Your task to perform on an android device: turn notification dots on Image 0: 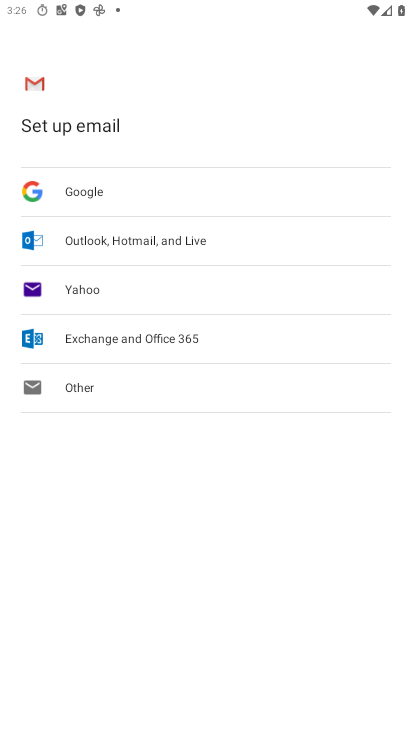
Step 0: press home button
Your task to perform on an android device: turn notification dots on Image 1: 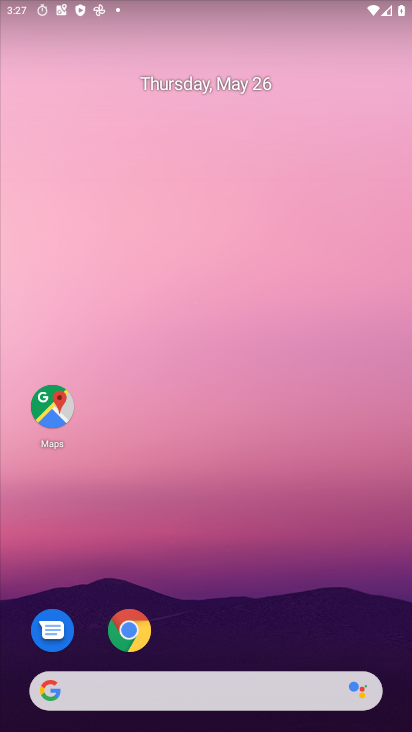
Step 1: drag from (197, 618) to (197, 8)
Your task to perform on an android device: turn notification dots on Image 2: 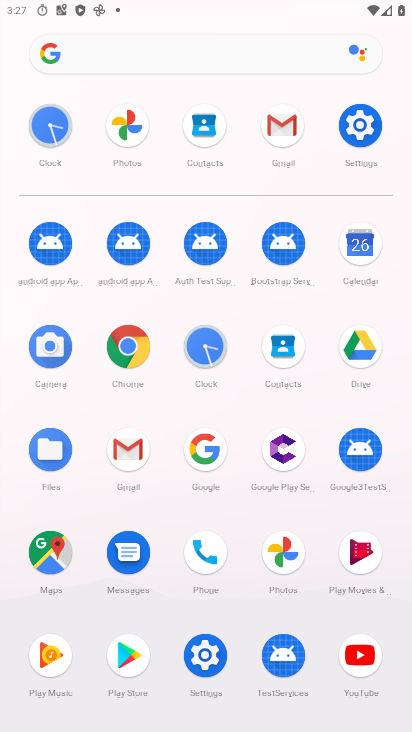
Step 2: click (362, 132)
Your task to perform on an android device: turn notification dots on Image 3: 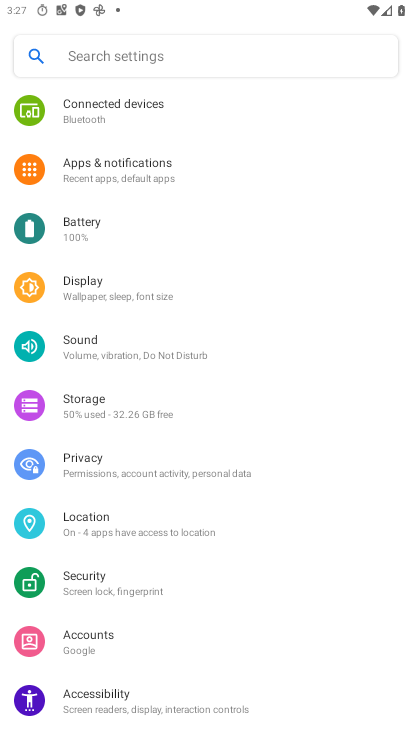
Step 3: click (139, 162)
Your task to perform on an android device: turn notification dots on Image 4: 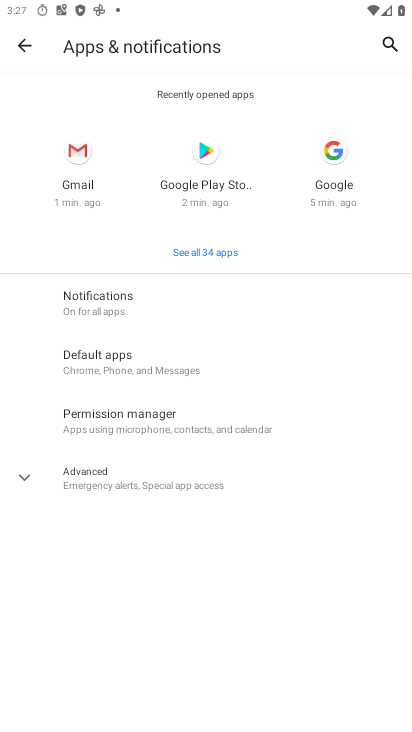
Step 4: click (131, 320)
Your task to perform on an android device: turn notification dots on Image 5: 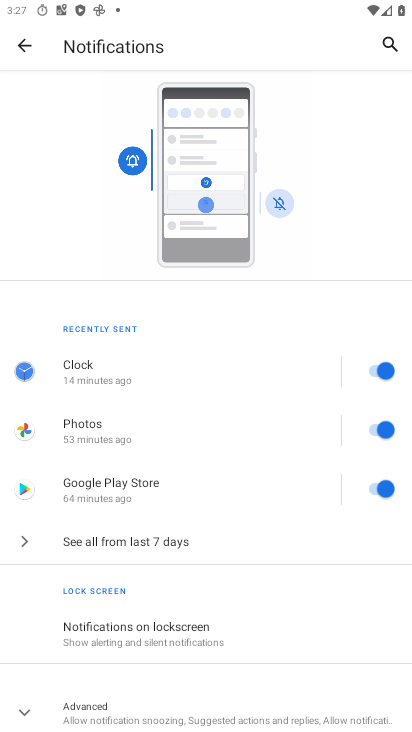
Step 5: click (182, 631)
Your task to perform on an android device: turn notification dots on Image 6: 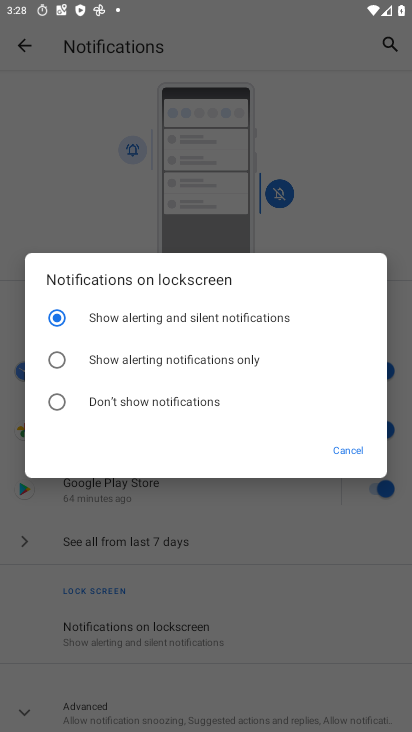
Step 6: click (351, 449)
Your task to perform on an android device: turn notification dots on Image 7: 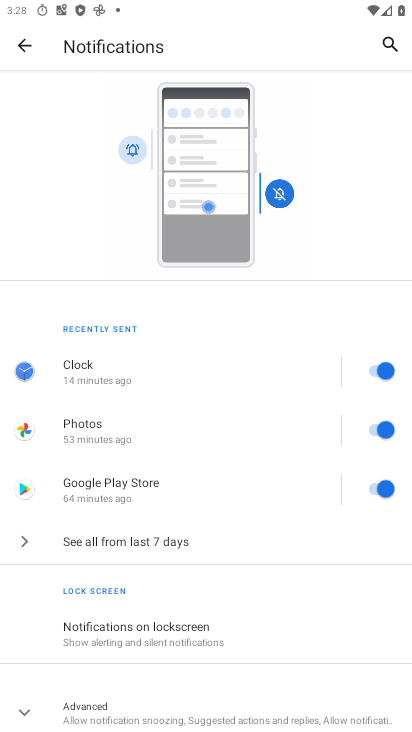
Step 7: click (142, 710)
Your task to perform on an android device: turn notification dots on Image 8: 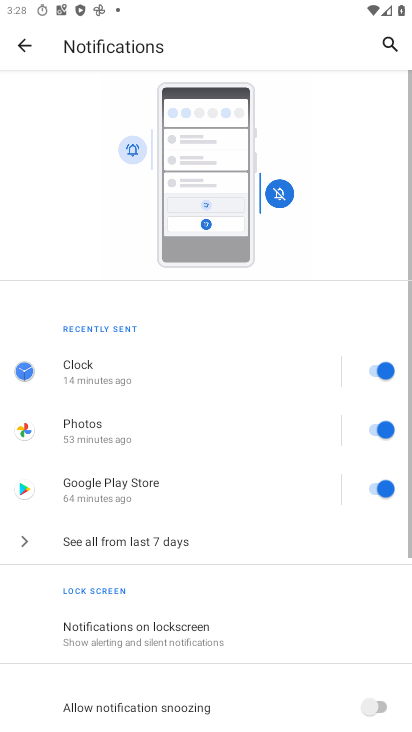
Step 8: drag from (141, 705) to (166, 405)
Your task to perform on an android device: turn notification dots on Image 9: 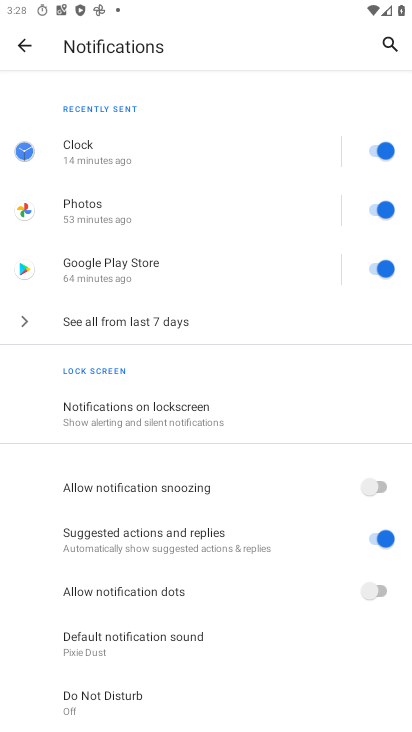
Step 9: click (379, 582)
Your task to perform on an android device: turn notification dots on Image 10: 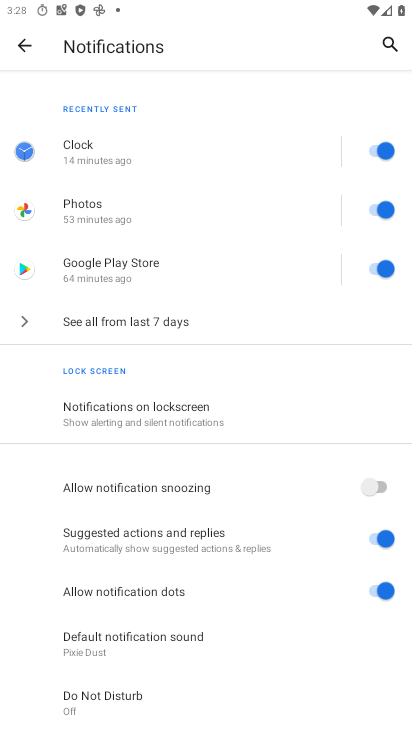
Step 10: task complete